Your task to perform on an android device: Toggle the flashlight Image 0: 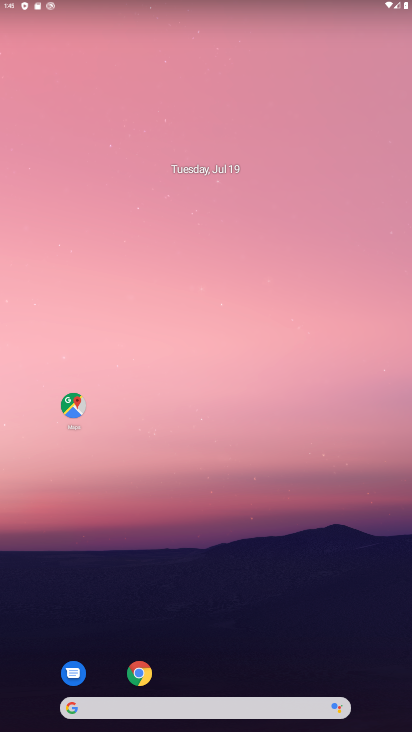
Step 0: drag from (199, 495) to (246, 131)
Your task to perform on an android device: Toggle the flashlight Image 1: 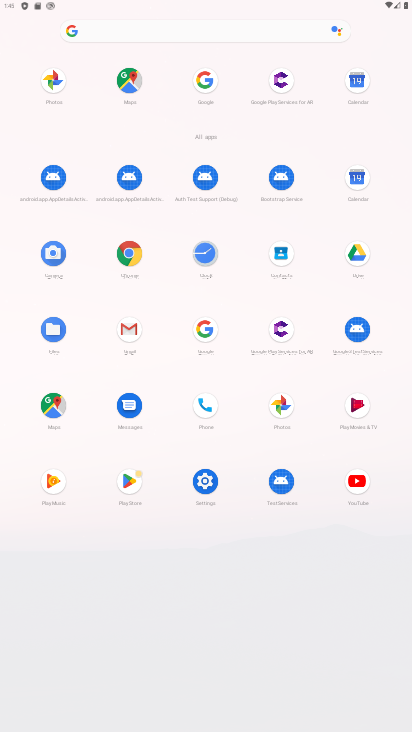
Step 1: click (204, 482)
Your task to perform on an android device: Toggle the flashlight Image 2: 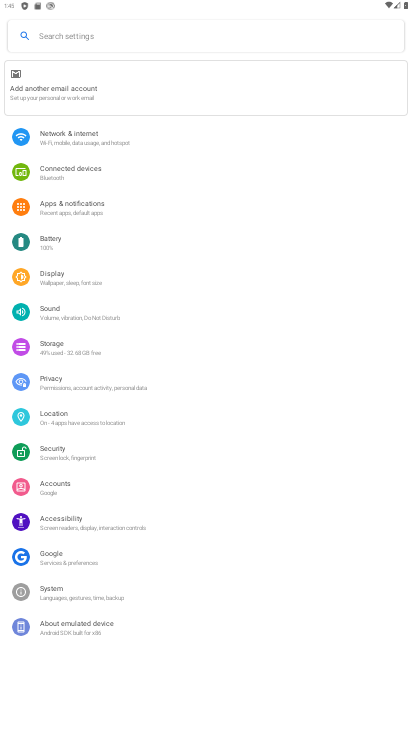
Step 2: click (51, 275)
Your task to perform on an android device: Toggle the flashlight Image 3: 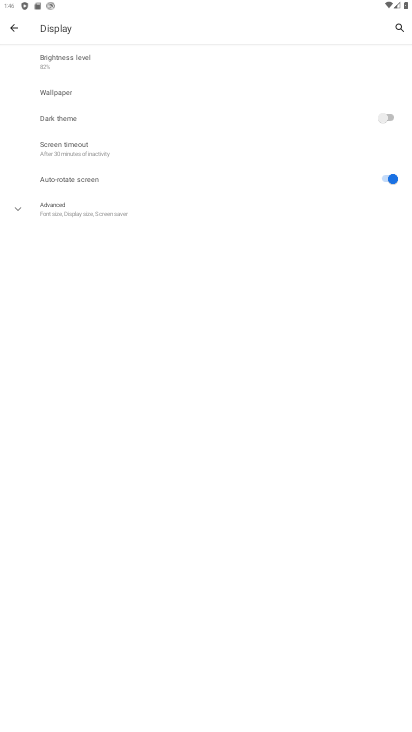
Step 3: click (15, 208)
Your task to perform on an android device: Toggle the flashlight Image 4: 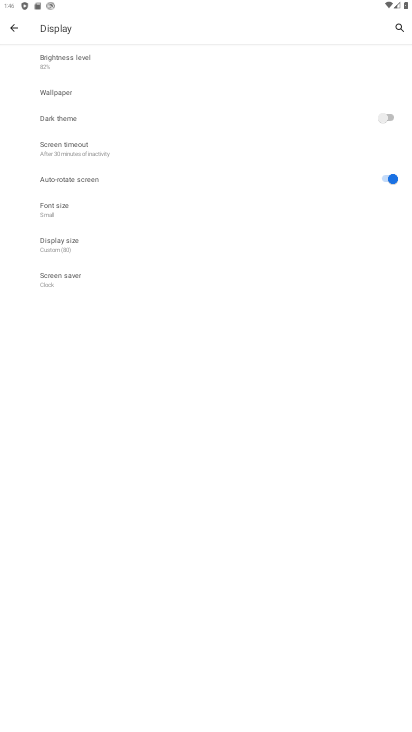
Step 4: click (74, 180)
Your task to perform on an android device: Toggle the flashlight Image 5: 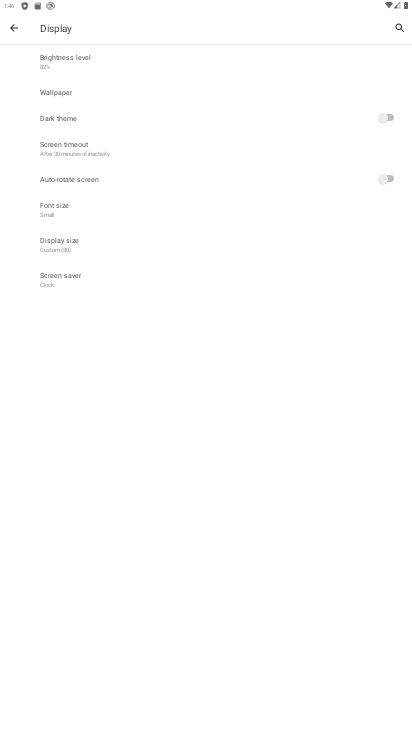
Step 5: click (73, 208)
Your task to perform on an android device: Toggle the flashlight Image 6: 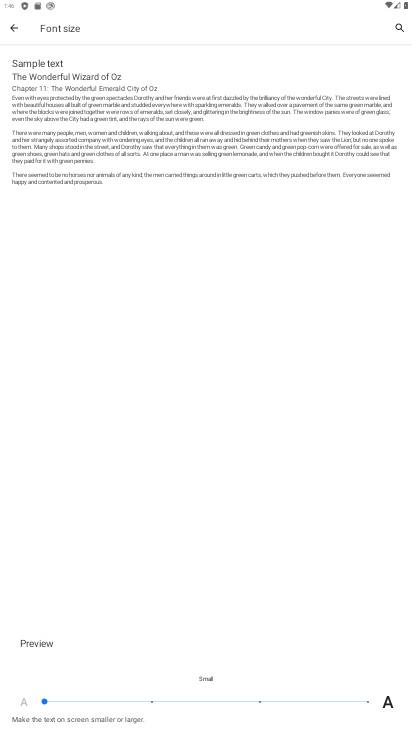
Step 6: task complete